Your task to perform on an android device: Go to accessibility settings Image 0: 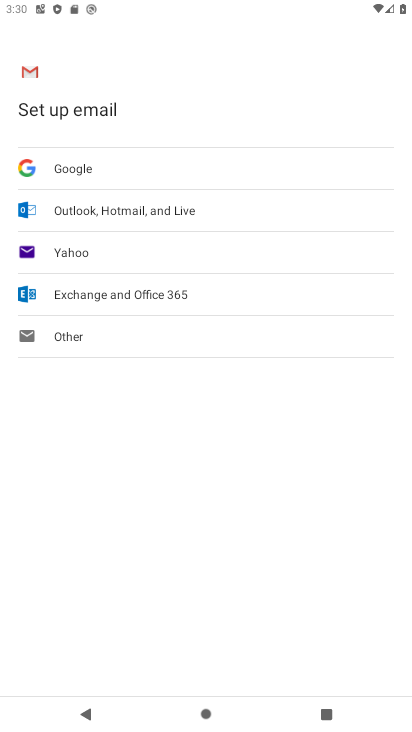
Step 0: press home button
Your task to perform on an android device: Go to accessibility settings Image 1: 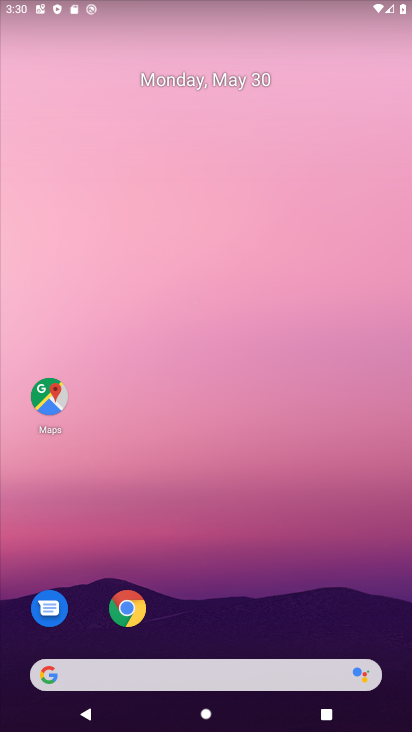
Step 1: drag from (208, 608) to (253, 191)
Your task to perform on an android device: Go to accessibility settings Image 2: 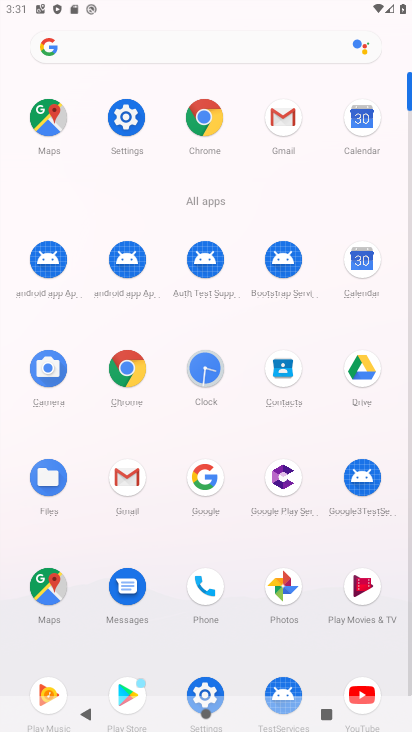
Step 2: click (129, 120)
Your task to perform on an android device: Go to accessibility settings Image 3: 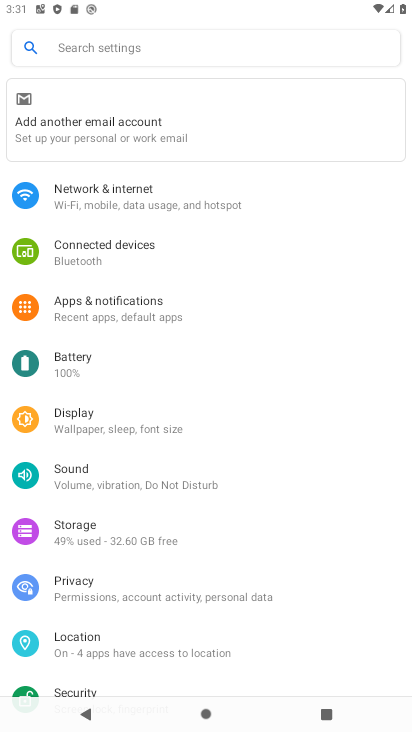
Step 3: drag from (219, 592) to (207, 249)
Your task to perform on an android device: Go to accessibility settings Image 4: 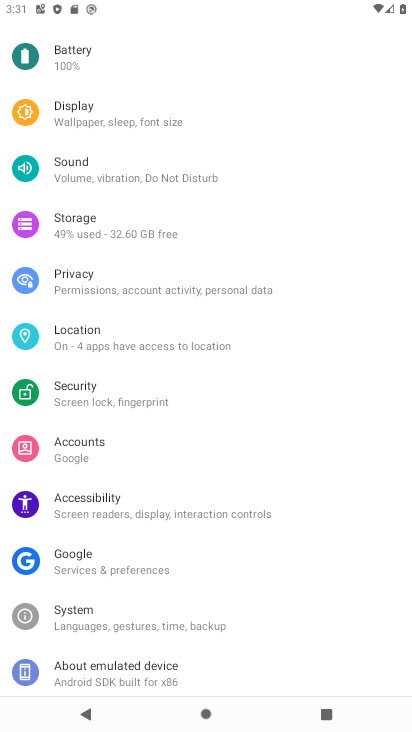
Step 4: click (104, 512)
Your task to perform on an android device: Go to accessibility settings Image 5: 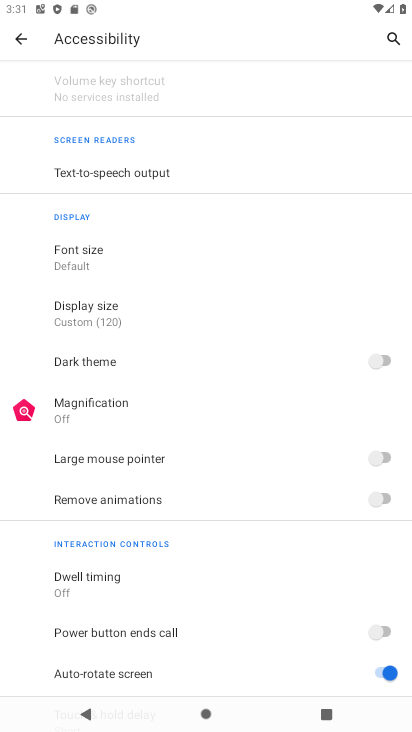
Step 5: task complete